Your task to perform on an android device: Go to battery settings Image 0: 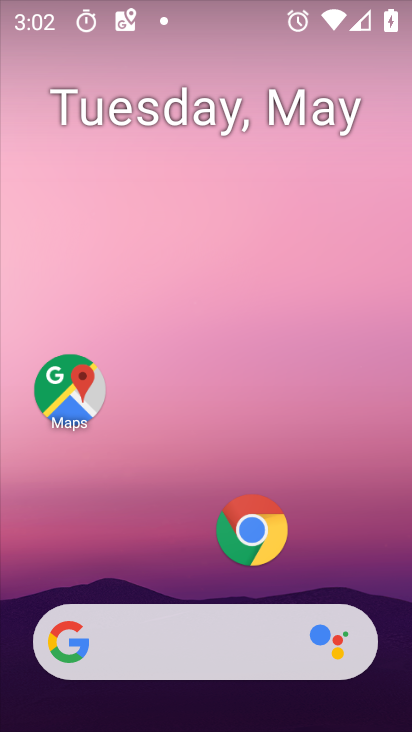
Step 0: drag from (196, 596) to (85, 0)
Your task to perform on an android device: Go to battery settings Image 1: 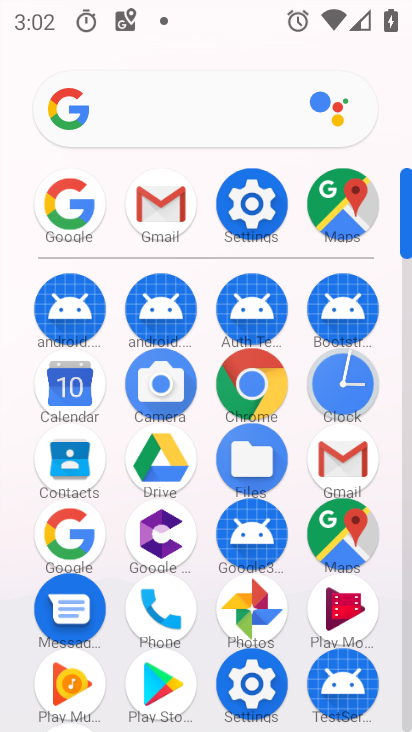
Step 1: click (242, 203)
Your task to perform on an android device: Go to battery settings Image 2: 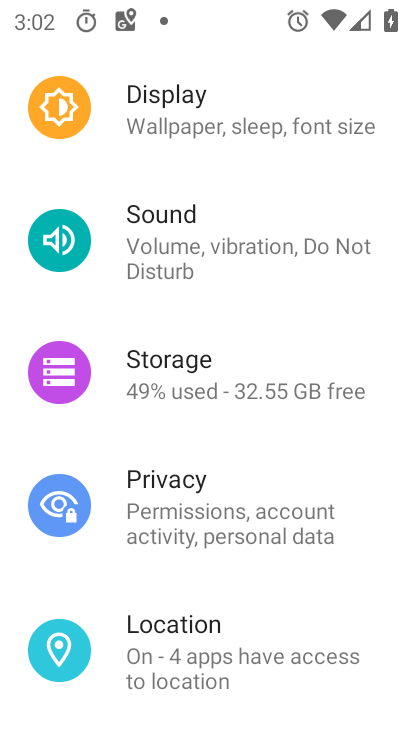
Step 2: drag from (197, 518) to (124, 18)
Your task to perform on an android device: Go to battery settings Image 3: 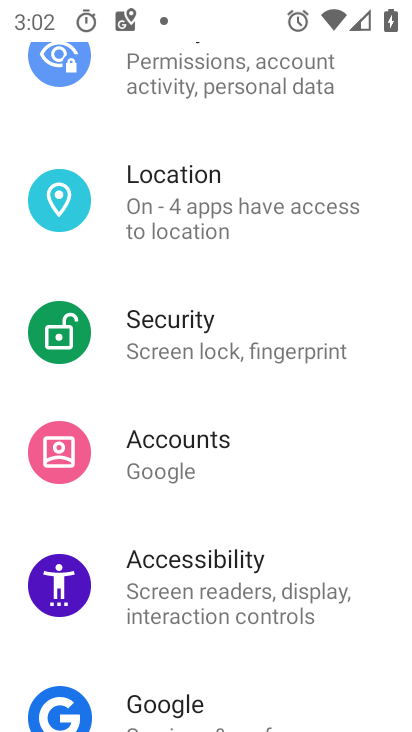
Step 3: drag from (217, 628) to (179, 186)
Your task to perform on an android device: Go to battery settings Image 4: 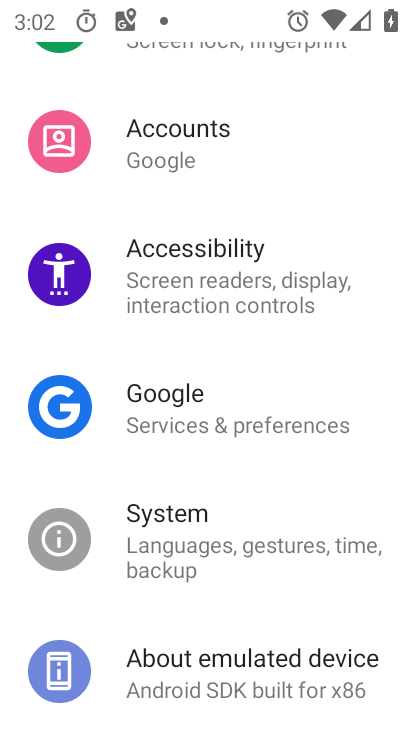
Step 4: drag from (186, 339) to (183, 730)
Your task to perform on an android device: Go to battery settings Image 5: 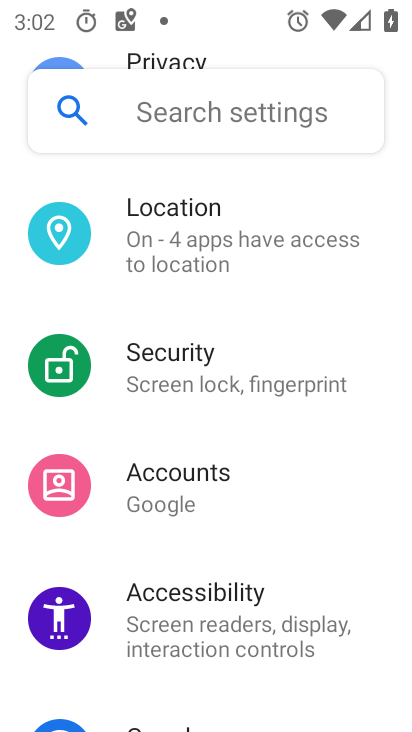
Step 5: drag from (181, 303) to (177, 722)
Your task to perform on an android device: Go to battery settings Image 6: 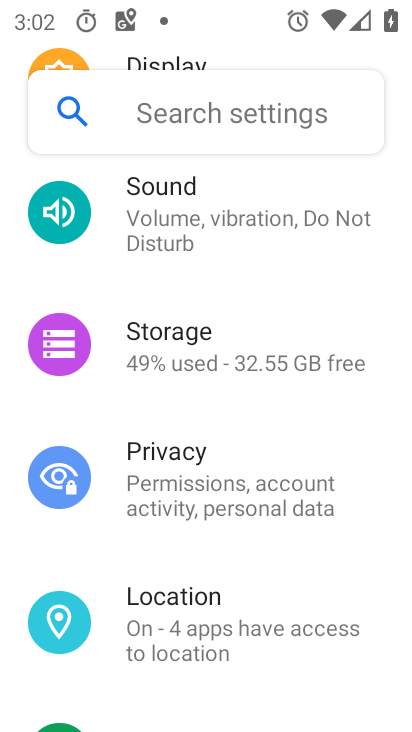
Step 6: drag from (175, 226) to (175, 703)
Your task to perform on an android device: Go to battery settings Image 7: 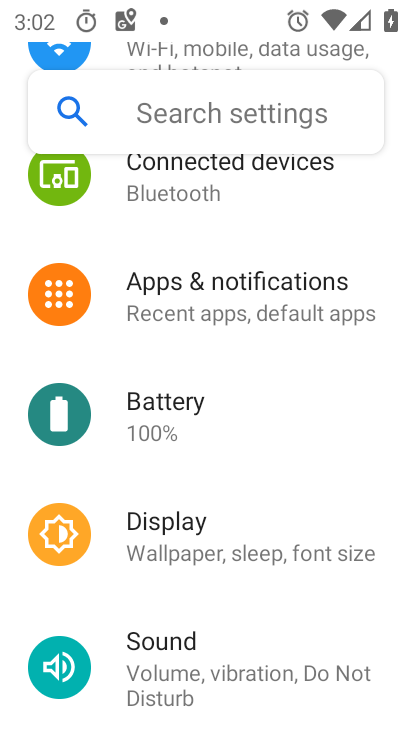
Step 7: click (186, 406)
Your task to perform on an android device: Go to battery settings Image 8: 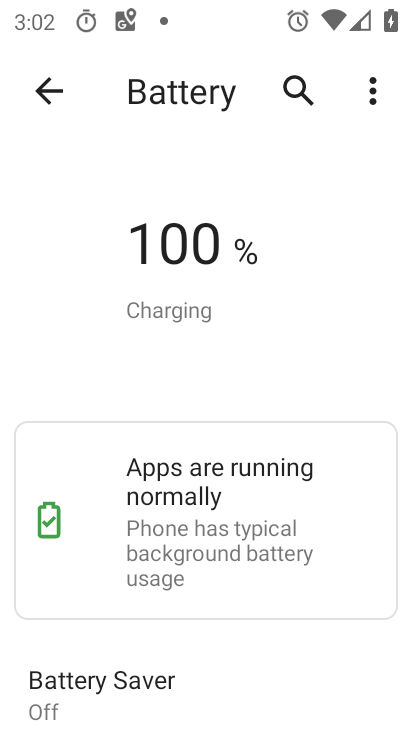
Step 8: task complete